Your task to perform on an android device: turn off priority inbox in the gmail app Image 0: 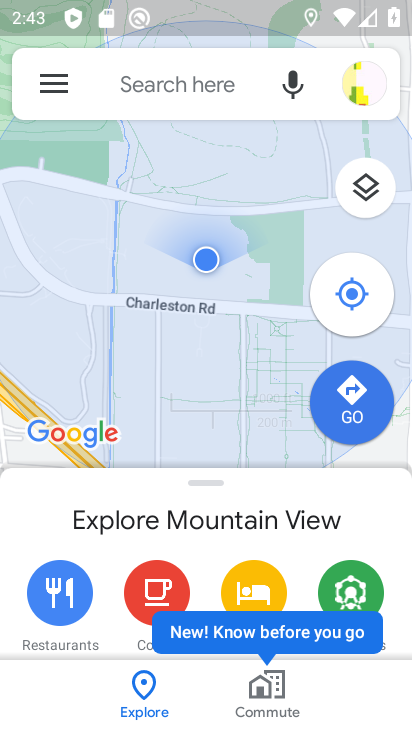
Step 0: press home button
Your task to perform on an android device: turn off priority inbox in the gmail app Image 1: 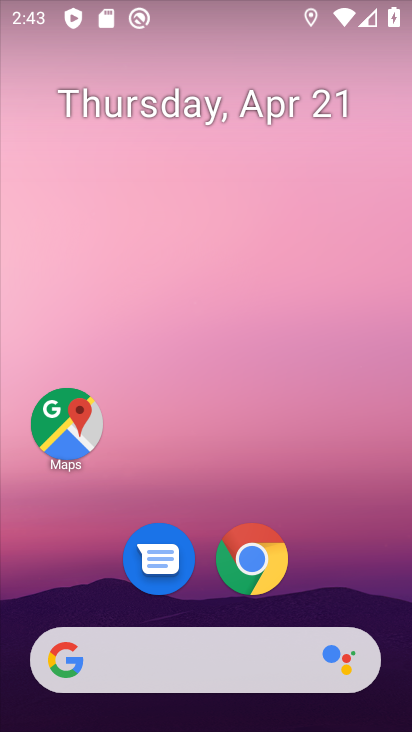
Step 1: drag from (344, 507) to (295, 97)
Your task to perform on an android device: turn off priority inbox in the gmail app Image 2: 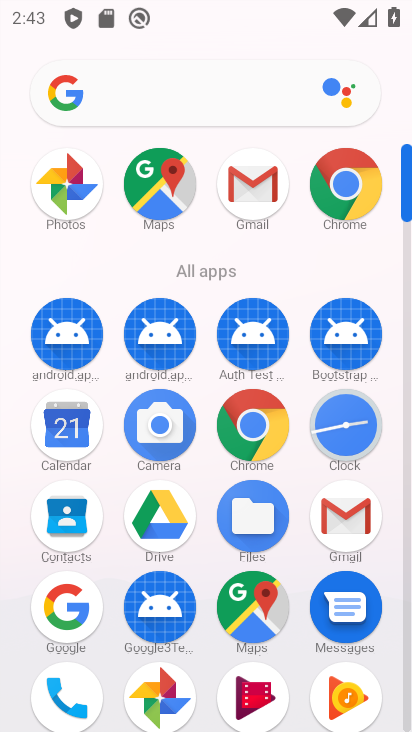
Step 2: click (272, 186)
Your task to perform on an android device: turn off priority inbox in the gmail app Image 3: 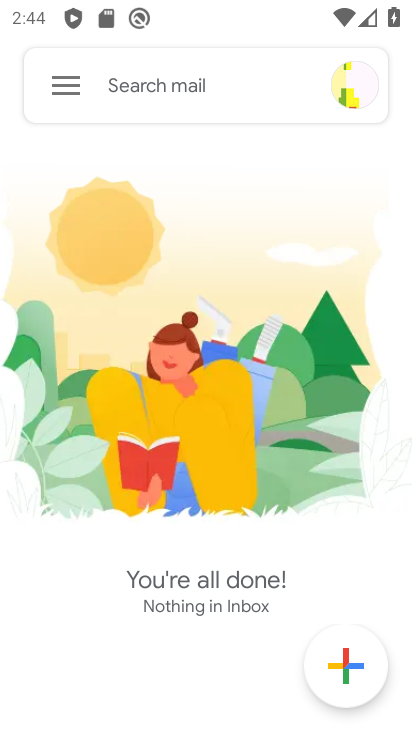
Step 3: click (75, 101)
Your task to perform on an android device: turn off priority inbox in the gmail app Image 4: 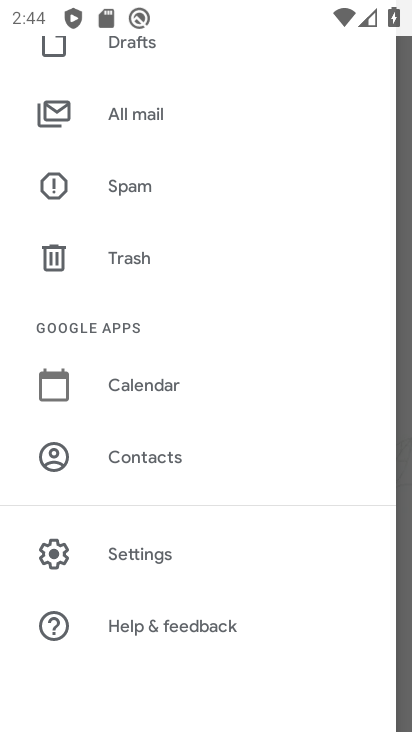
Step 4: click (153, 555)
Your task to perform on an android device: turn off priority inbox in the gmail app Image 5: 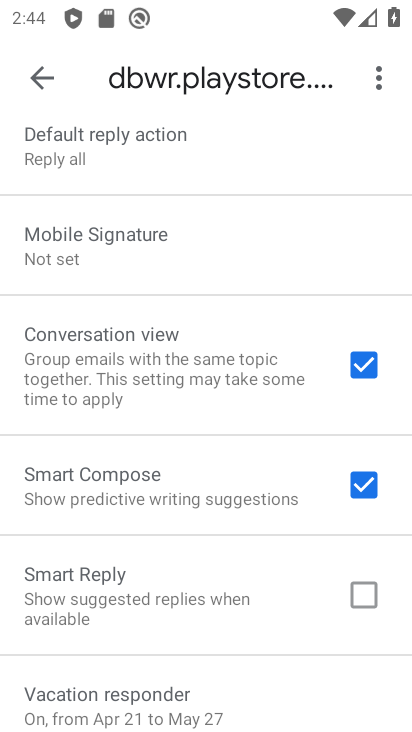
Step 5: drag from (206, 212) to (223, 682)
Your task to perform on an android device: turn off priority inbox in the gmail app Image 6: 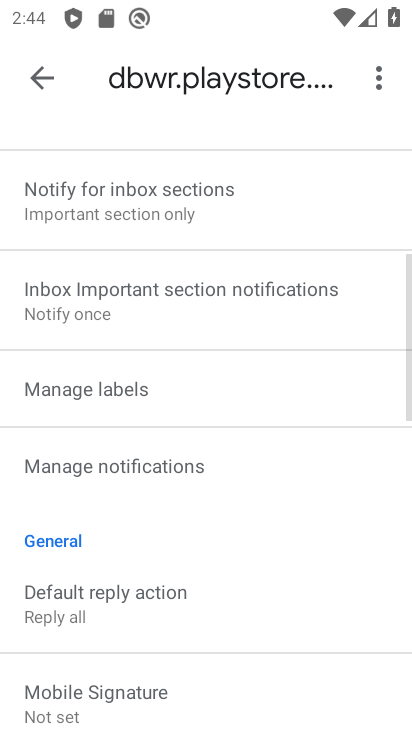
Step 6: drag from (183, 195) to (178, 645)
Your task to perform on an android device: turn off priority inbox in the gmail app Image 7: 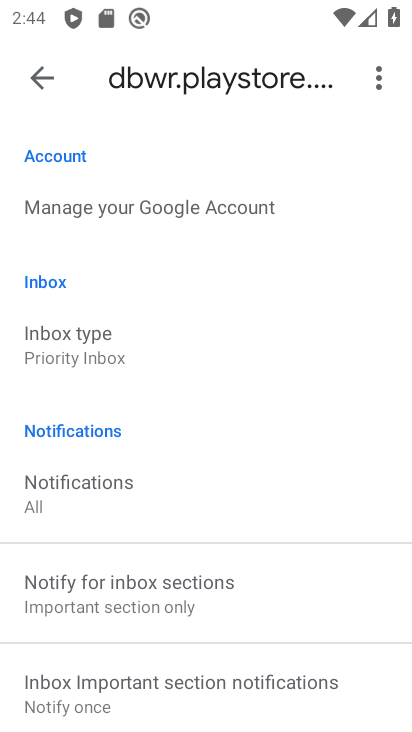
Step 7: click (116, 350)
Your task to perform on an android device: turn off priority inbox in the gmail app Image 8: 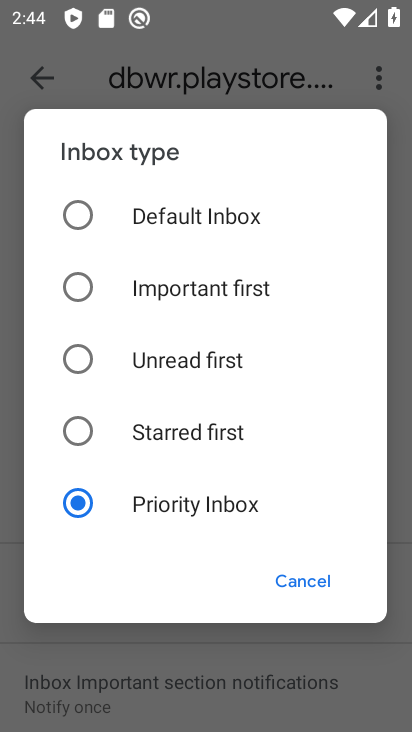
Step 8: click (89, 217)
Your task to perform on an android device: turn off priority inbox in the gmail app Image 9: 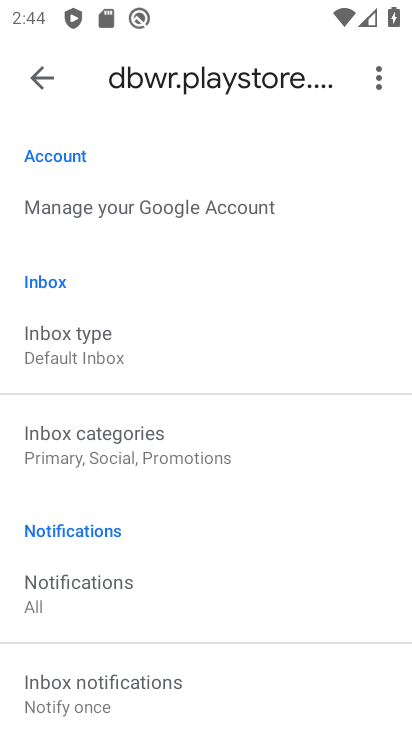
Step 9: task complete